Your task to perform on an android device: choose inbox layout in the gmail app Image 0: 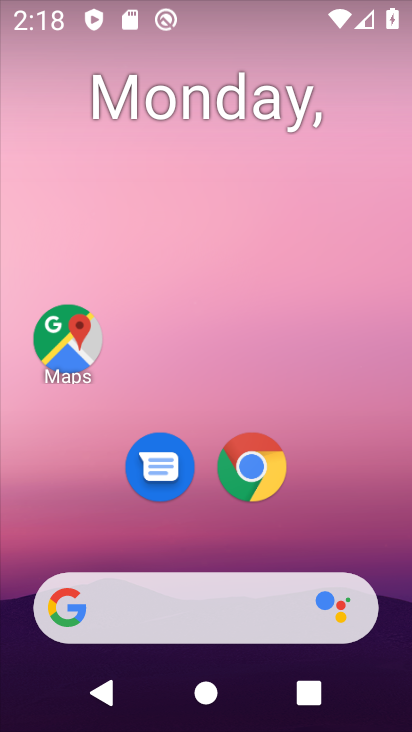
Step 0: drag from (398, 577) to (331, 128)
Your task to perform on an android device: choose inbox layout in the gmail app Image 1: 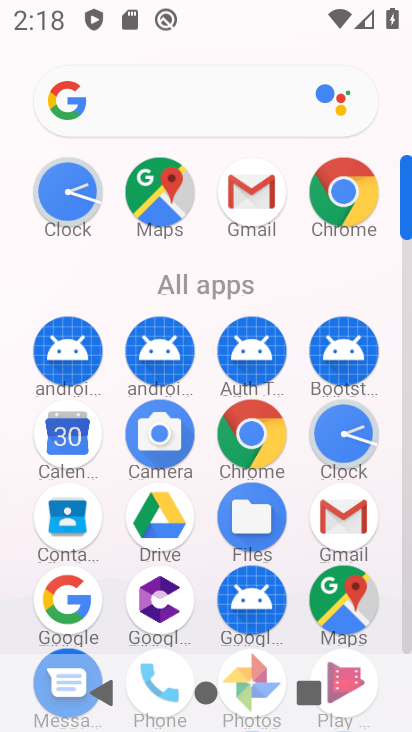
Step 1: click (257, 215)
Your task to perform on an android device: choose inbox layout in the gmail app Image 2: 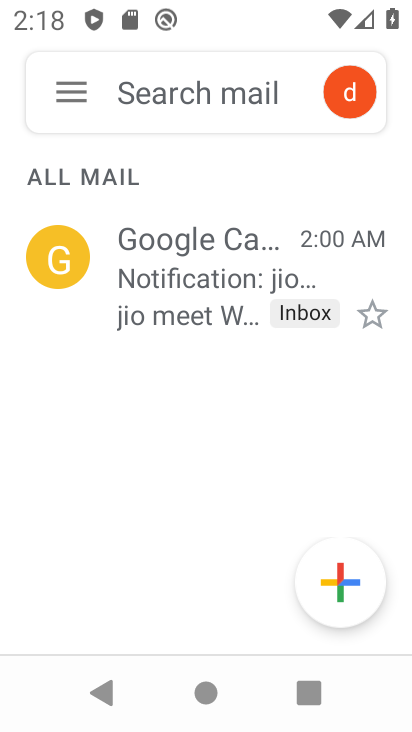
Step 2: click (68, 86)
Your task to perform on an android device: choose inbox layout in the gmail app Image 3: 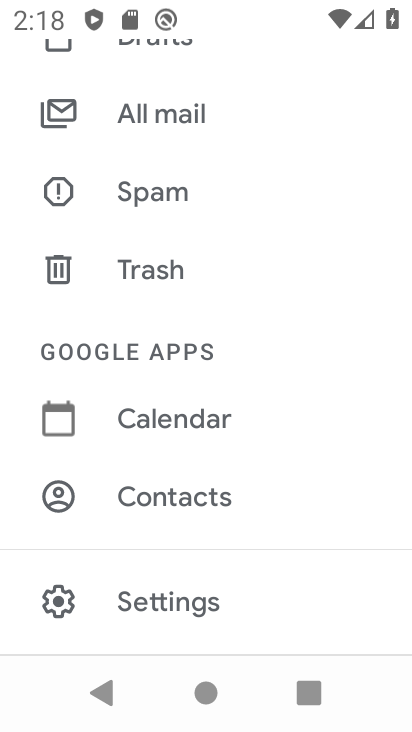
Step 3: click (184, 607)
Your task to perform on an android device: choose inbox layout in the gmail app Image 4: 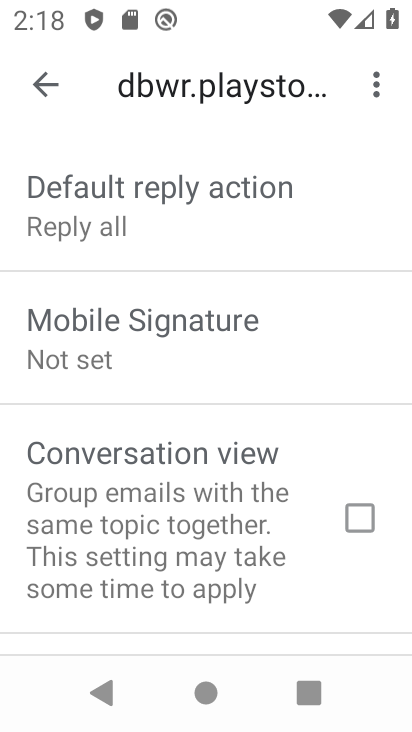
Step 4: drag from (250, 593) to (252, 540)
Your task to perform on an android device: choose inbox layout in the gmail app Image 5: 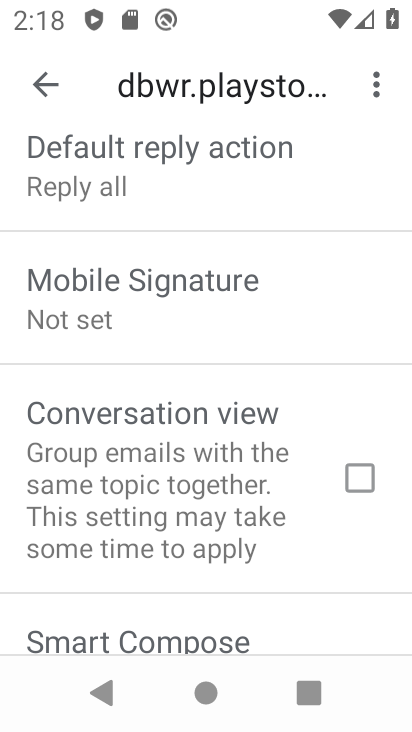
Step 5: drag from (220, 207) to (188, 546)
Your task to perform on an android device: choose inbox layout in the gmail app Image 6: 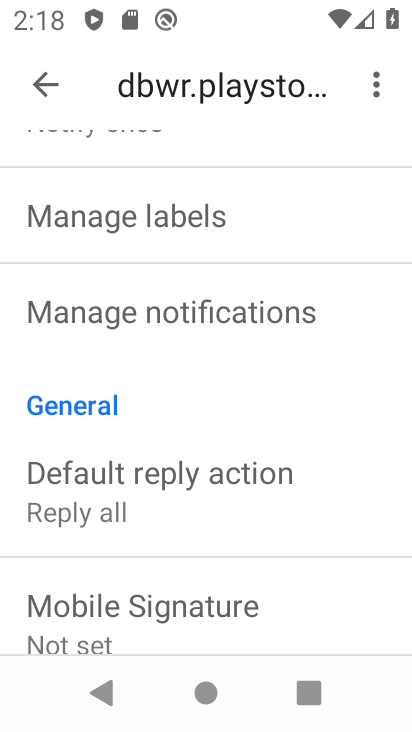
Step 6: drag from (220, 226) to (209, 474)
Your task to perform on an android device: choose inbox layout in the gmail app Image 7: 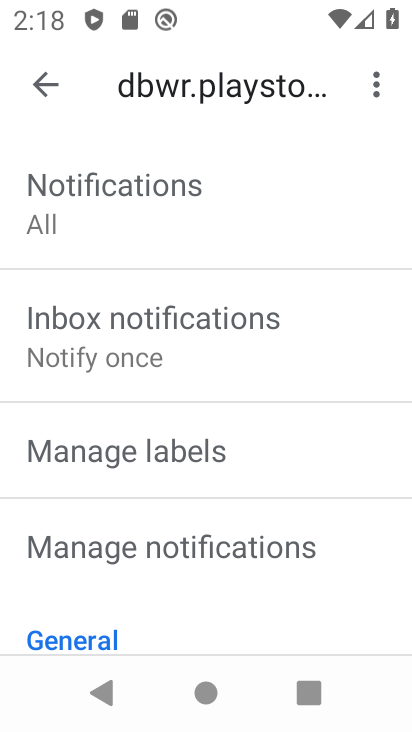
Step 7: drag from (209, 193) to (198, 573)
Your task to perform on an android device: choose inbox layout in the gmail app Image 8: 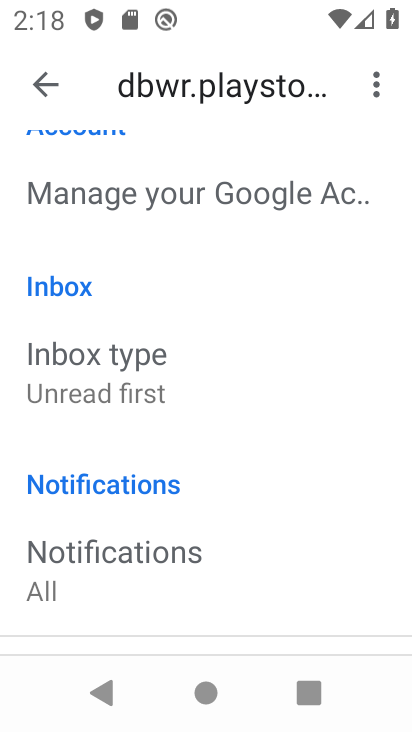
Step 8: click (165, 367)
Your task to perform on an android device: choose inbox layout in the gmail app Image 9: 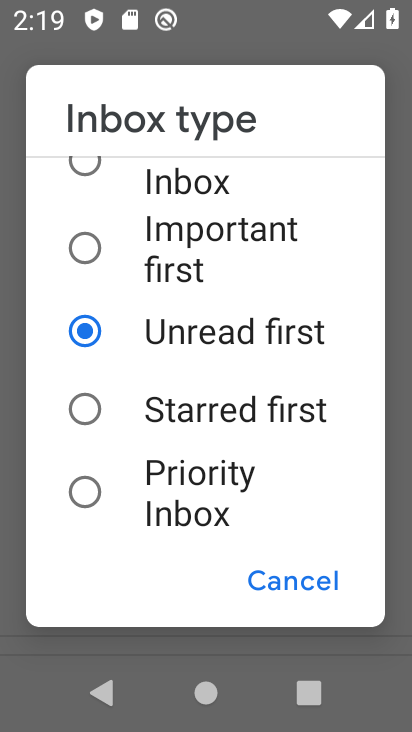
Step 9: click (201, 228)
Your task to perform on an android device: choose inbox layout in the gmail app Image 10: 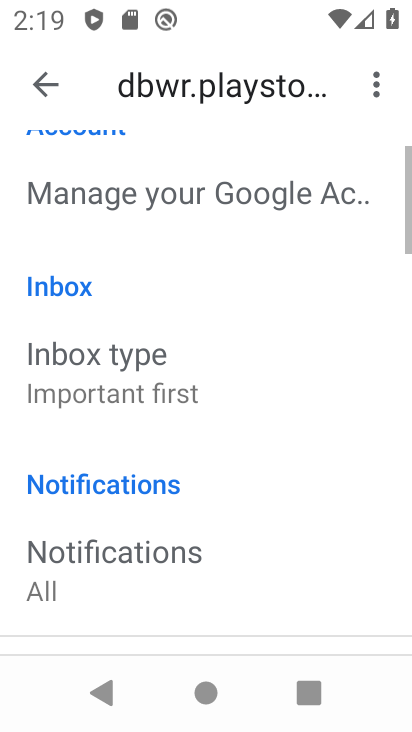
Step 10: task complete